Your task to perform on an android device: turn on notifications settings in the gmail app Image 0: 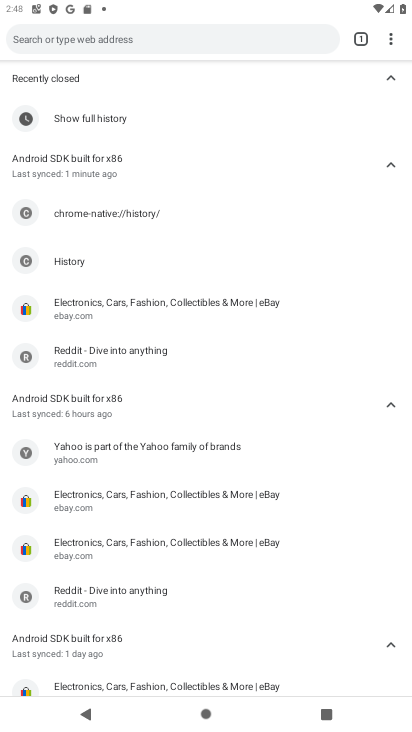
Step 0: press home button
Your task to perform on an android device: turn on notifications settings in the gmail app Image 1: 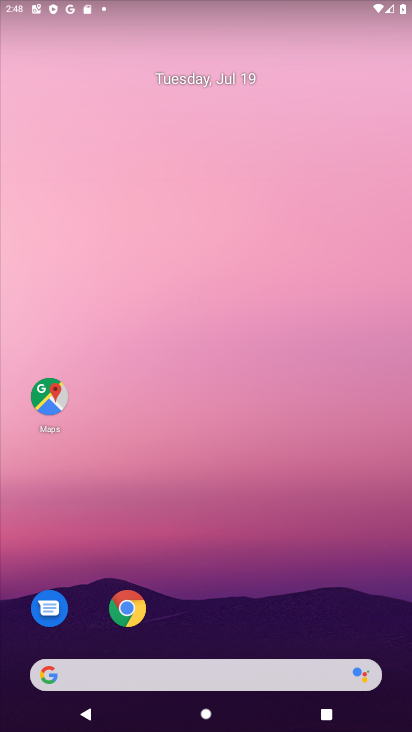
Step 1: click (198, 15)
Your task to perform on an android device: turn on notifications settings in the gmail app Image 2: 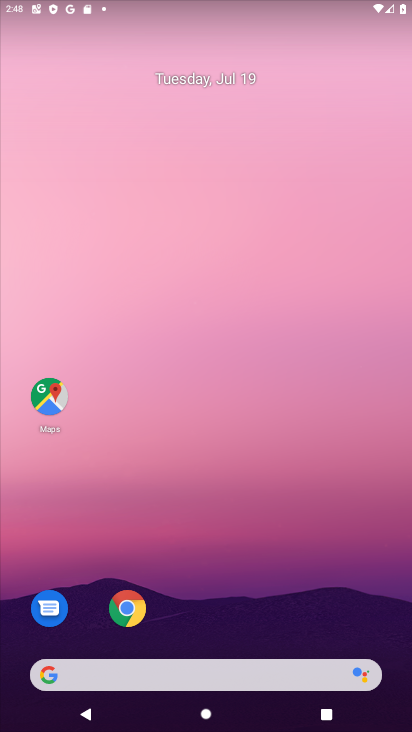
Step 2: drag from (258, 610) to (205, 130)
Your task to perform on an android device: turn on notifications settings in the gmail app Image 3: 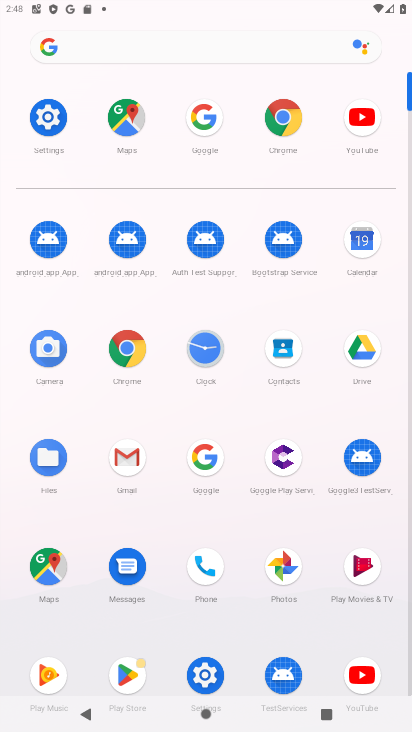
Step 3: click (132, 461)
Your task to perform on an android device: turn on notifications settings in the gmail app Image 4: 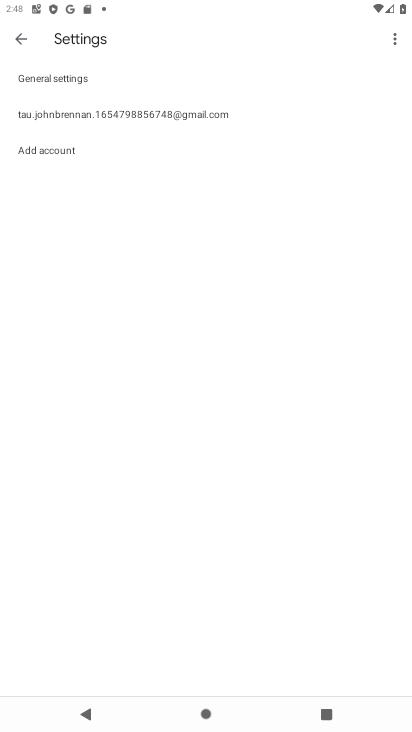
Step 4: click (82, 110)
Your task to perform on an android device: turn on notifications settings in the gmail app Image 5: 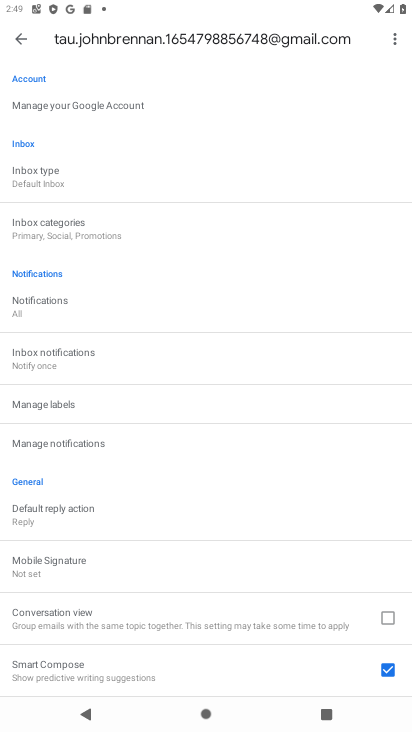
Step 5: click (57, 440)
Your task to perform on an android device: turn on notifications settings in the gmail app Image 6: 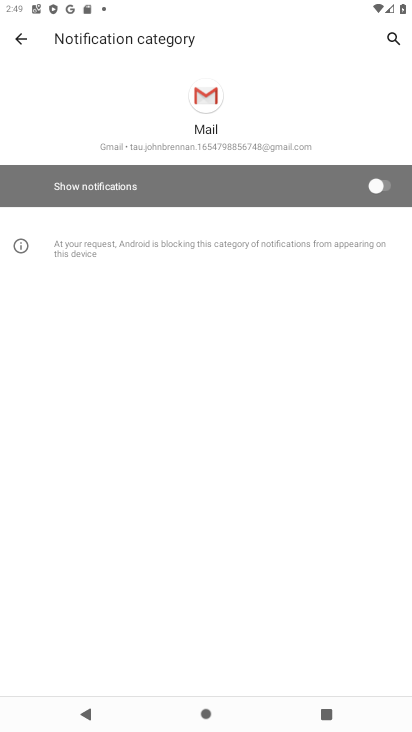
Step 6: click (371, 185)
Your task to perform on an android device: turn on notifications settings in the gmail app Image 7: 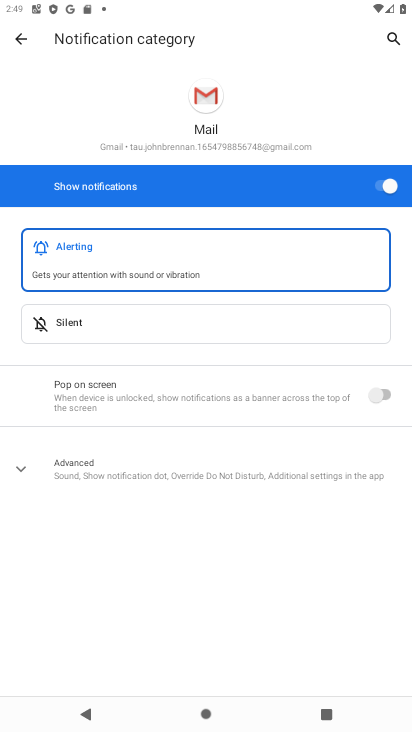
Step 7: task complete